Your task to perform on an android device: Open calendar and show me the fourth week of next month Image 0: 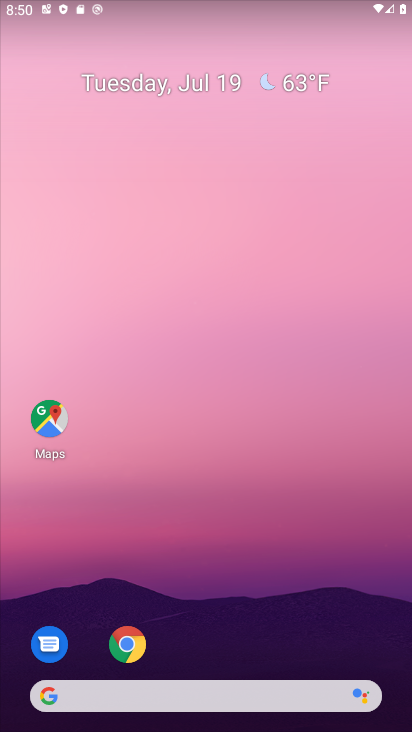
Step 0: drag from (216, 529) to (154, 158)
Your task to perform on an android device: Open calendar and show me the fourth week of next month Image 1: 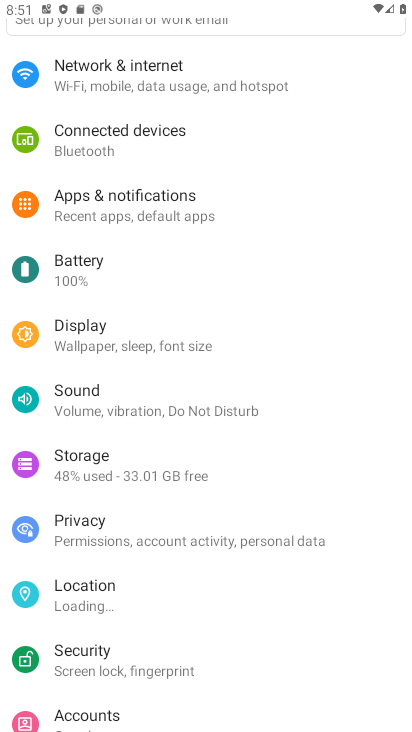
Step 1: press back button
Your task to perform on an android device: Open calendar and show me the fourth week of next month Image 2: 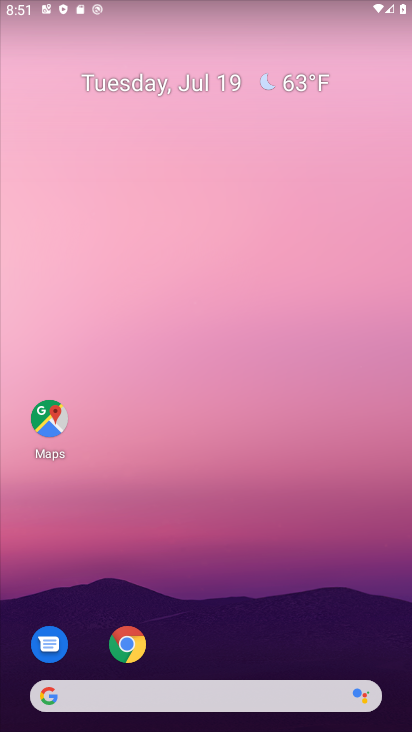
Step 2: drag from (209, 663) to (185, 290)
Your task to perform on an android device: Open calendar and show me the fourth week of next month Image 3: 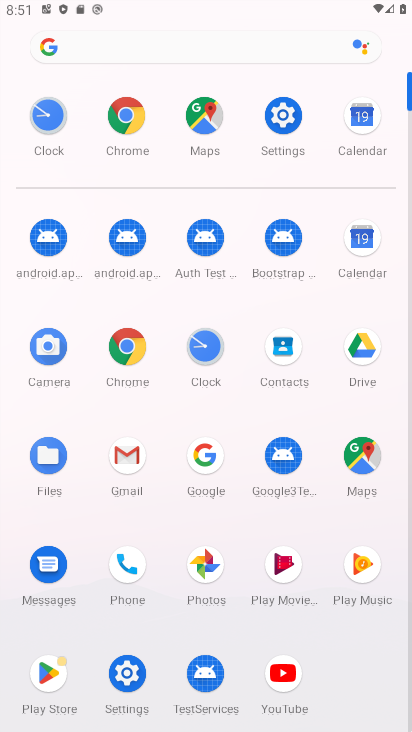
Step 3: click (357, 245)
Your task to perform on an android device: Open calendar and show me the fourth week of next month Image 4: 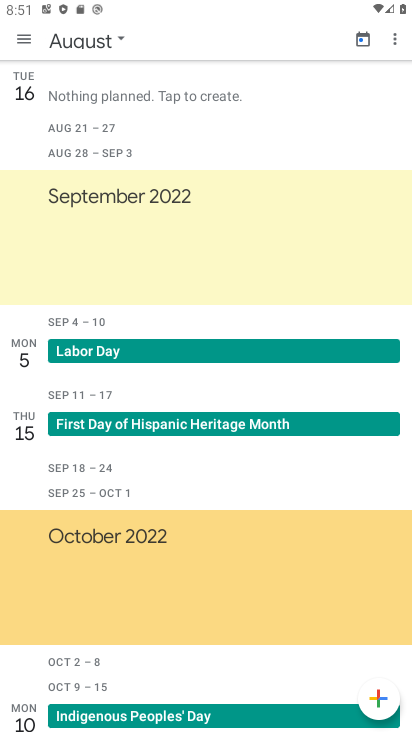
Step 4: click (126, 39)
Your task to perform on an android device: Open calendar and show me the fourth week of next month Image 5: 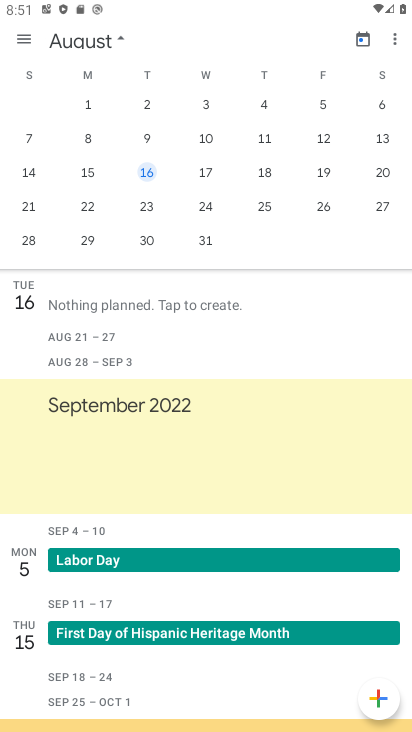
Step 5: click (153, 197)
Your task to perform on an android device: Open calendar and show me the fourth week of next month Image 6: 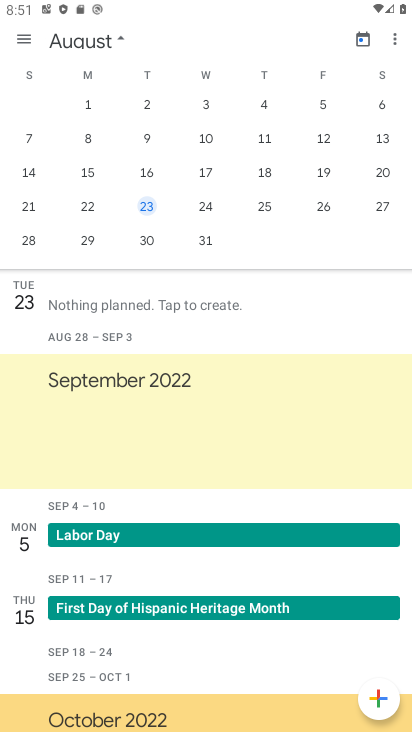
Step 6: click (148, 202)
Your task to perform on an android device: Open calendar and show me the fourth week of next month Image 7: 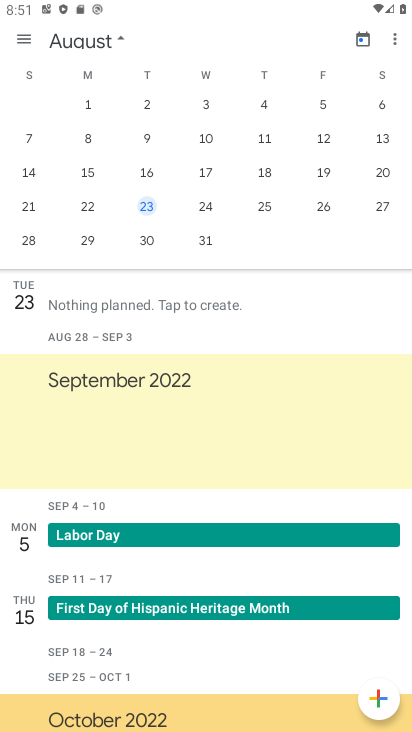
Step 7: task complete